Your task to perform on an android device: move a message to another label in the gmail app Image 0: 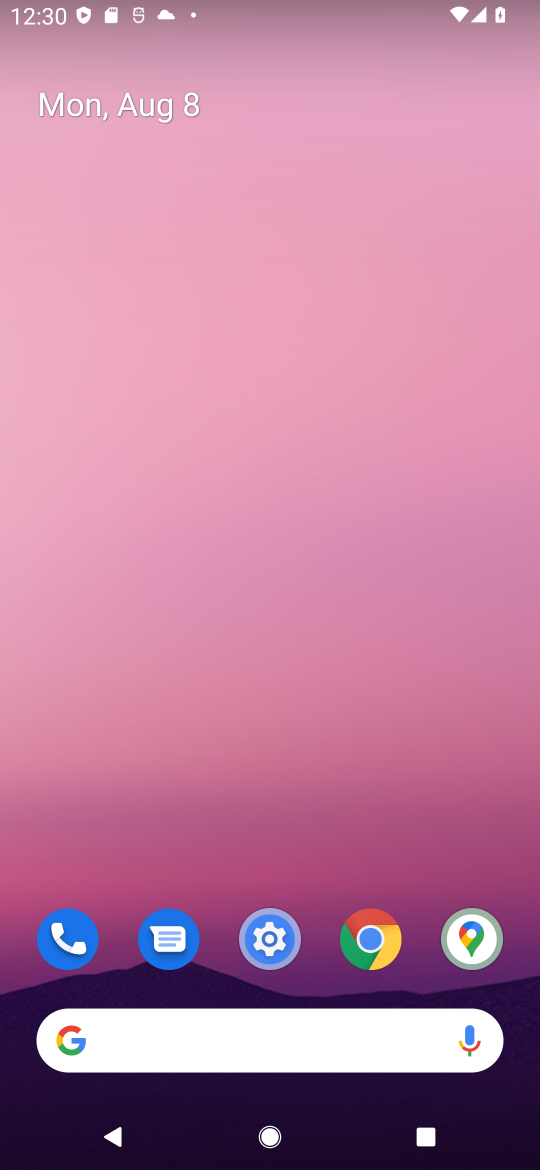
Step 0: drag from (220, 1049) to (238, 454)
Your task to perform on an android device: move a message to another label in the gmail app Image 1: 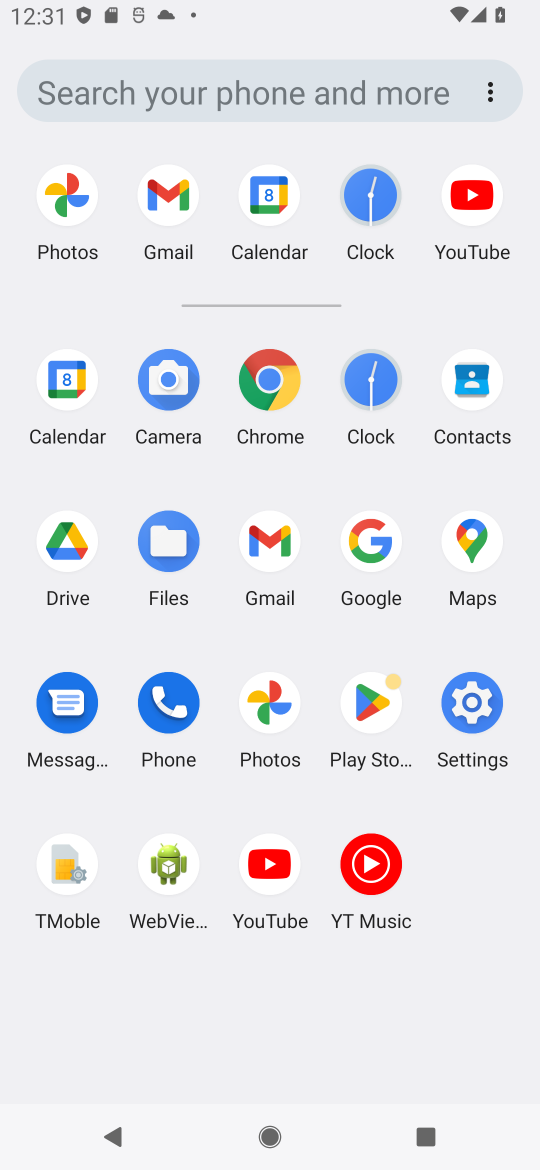
Step 1: click (167, 185)
Your task to perform on an android device: move a message to another label in the gmail app Image 2: 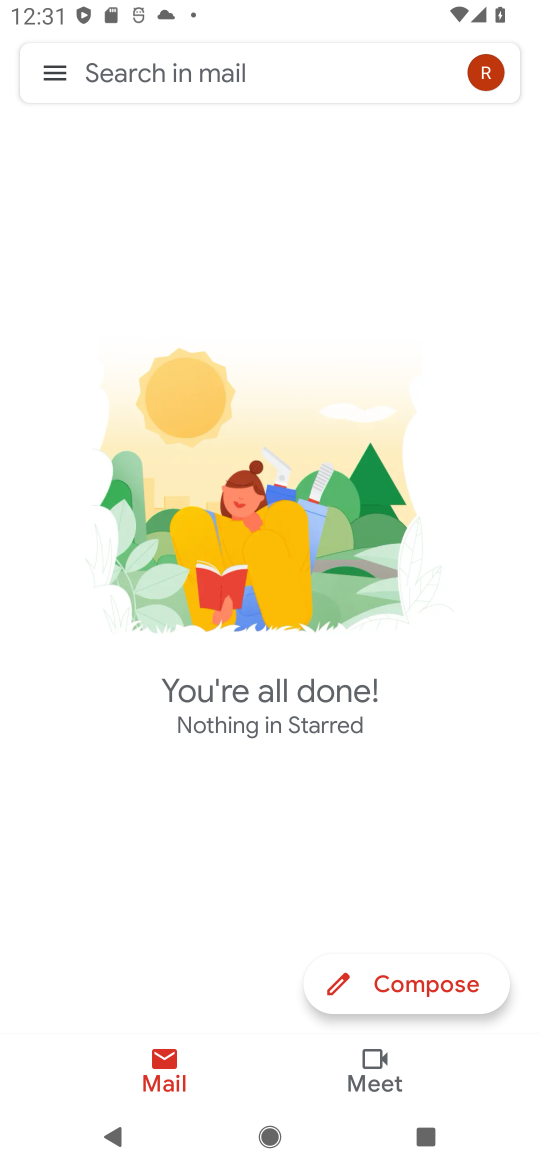
Step 2: click (59, 81)
Your task to perform on an android device: move a message to another label in the gmail app Image 3: 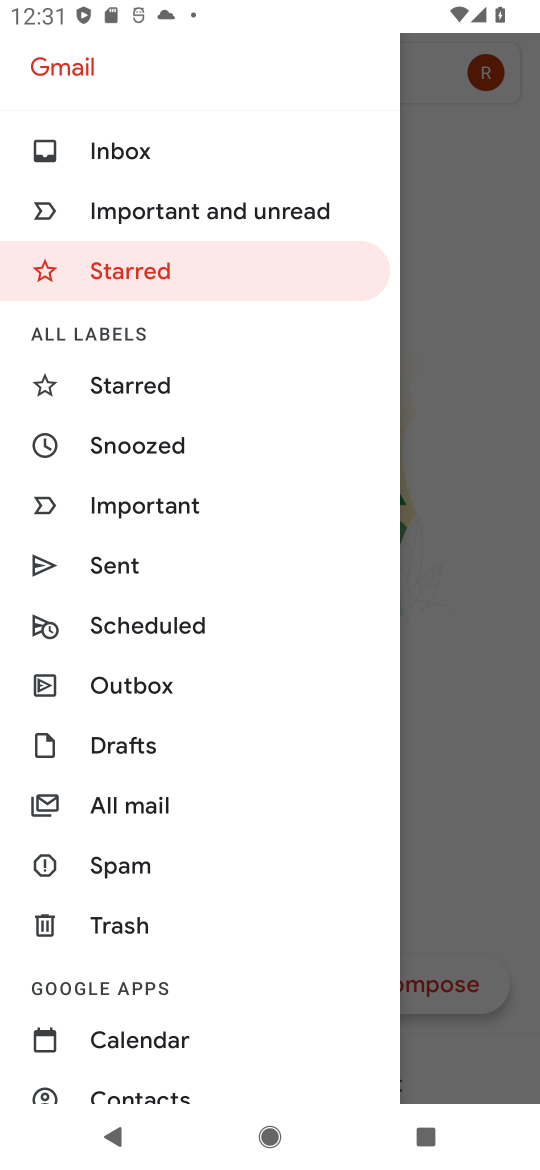
Step 3: click (115, 168)
Your task to perform on an android device: move a message to another label in the gmail app Image 4: 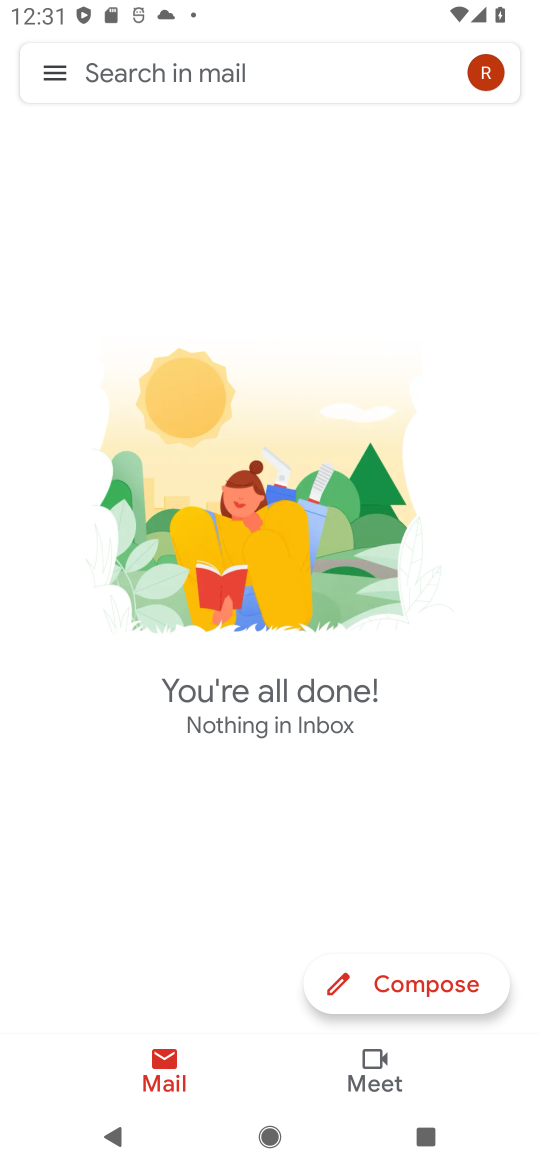
Step 4: click (47, 77)
Your task to perform on an android device: move a message to another label in the gmail app Image 5: 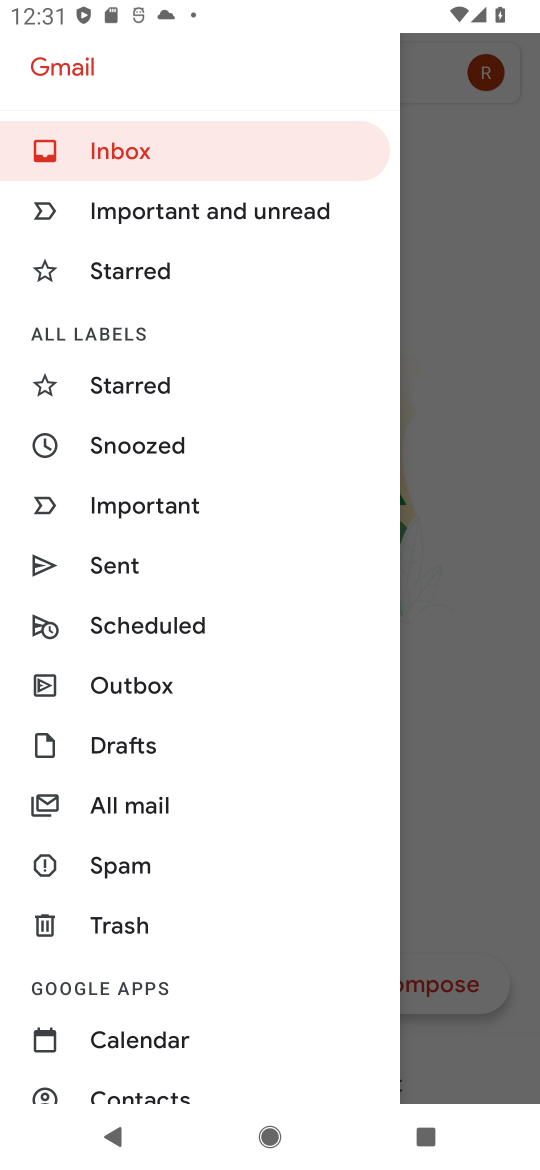
Step 5: click (128, 798)
Your task to perform on an android device: move a message to another label in the gmail app Image 6: 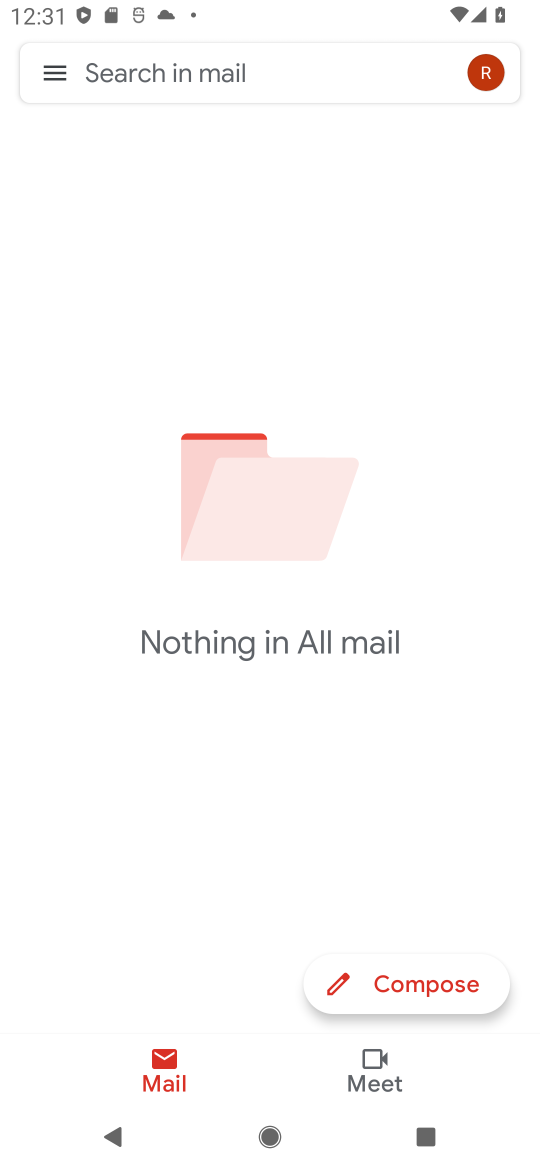
Step 6: task complete